Your task to perform on an android device: empty trash in the gmail app Image 0: 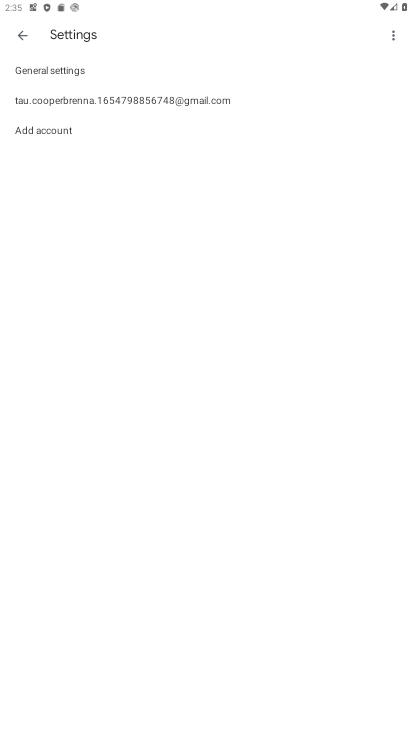
Step 0: press home button
Your task to perform on an android device: empty trash in the gmail app Image 1: 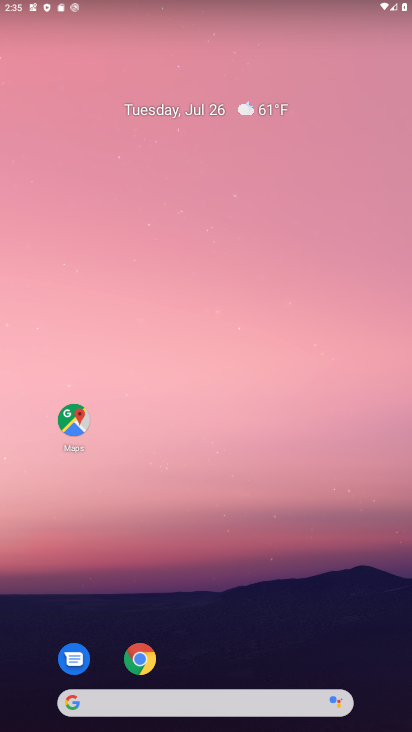
Step 1: drag from (190, 577) to (270, 101)
Your task to perform on an android device: empty trash in the gmail app Image 2: 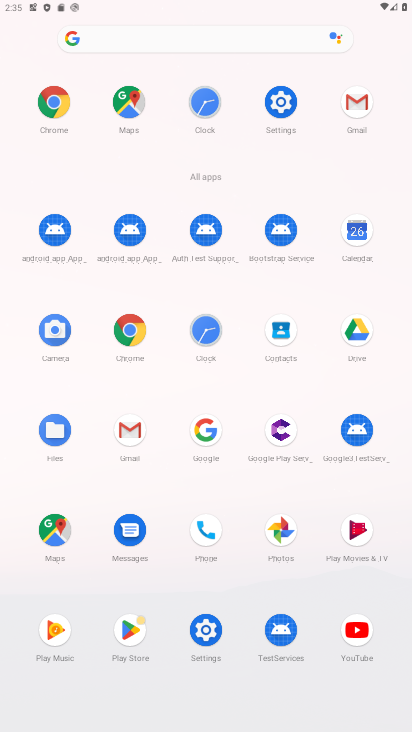
Step 2: click (360, 120)
Your task to perform on an android device: empty trash in the gmail app Image 3: 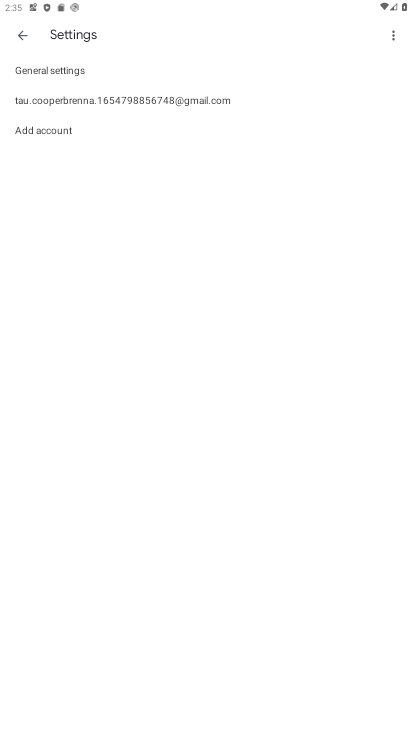
Step 3: click (22, 36)
Your task to perform on an android device: empty trash in the gmail app Image 4: 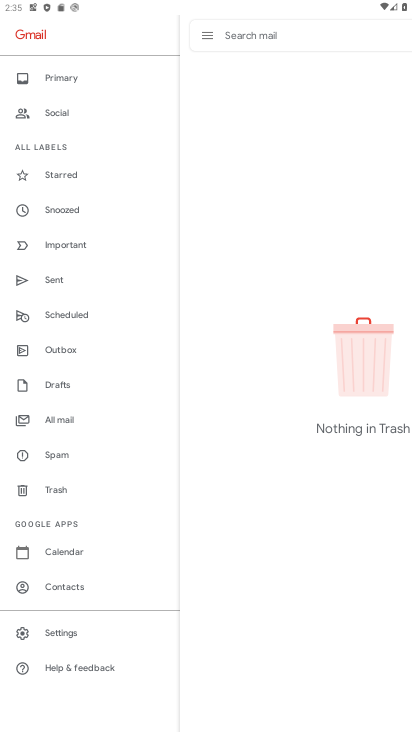
Step 4: click (49, 495)
Your task to perform on an android device: empty trash in the gmail app Image 5: 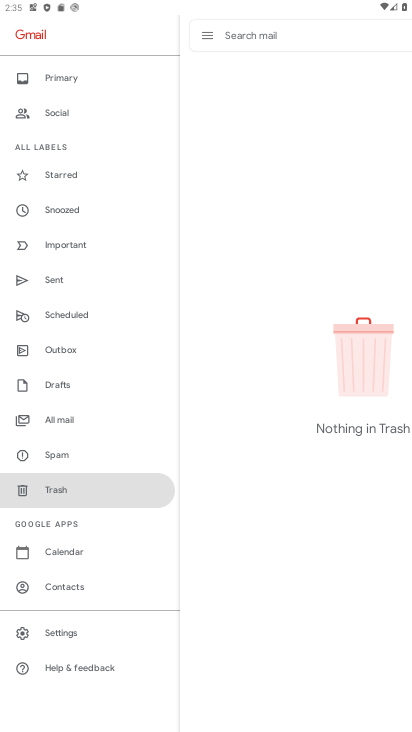
Step 5: click (49, 495)
Your task to perform on an android device: empty trash in the gmail app Image 6: 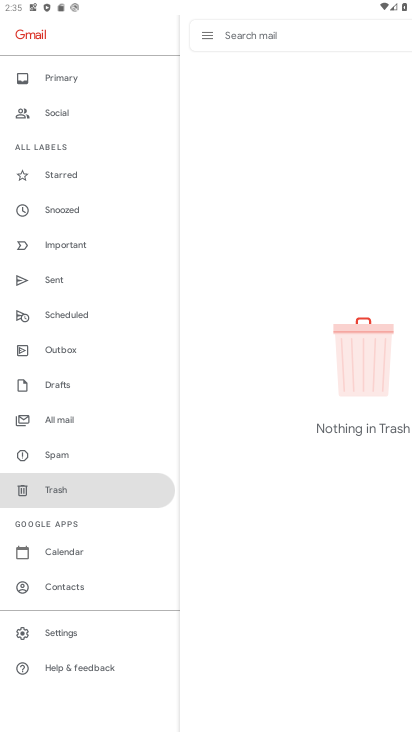
Step 6: click (49, 495)
Your task to perform on an android device: empty trash in the gmail app Image 7: 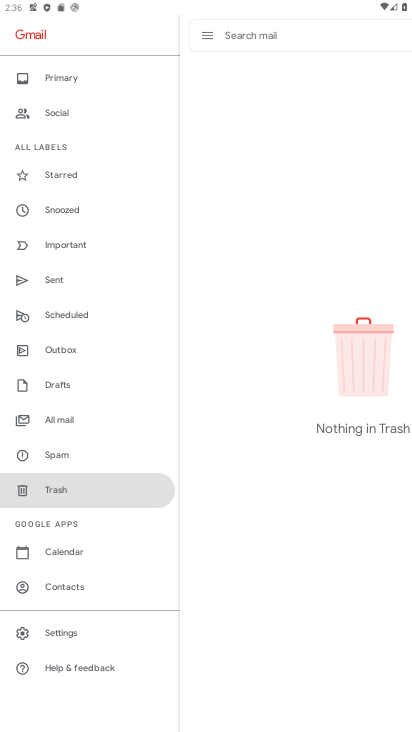
Step 7: task complete